Your task to perform on an android device: open chrome privacy settings Image 0: 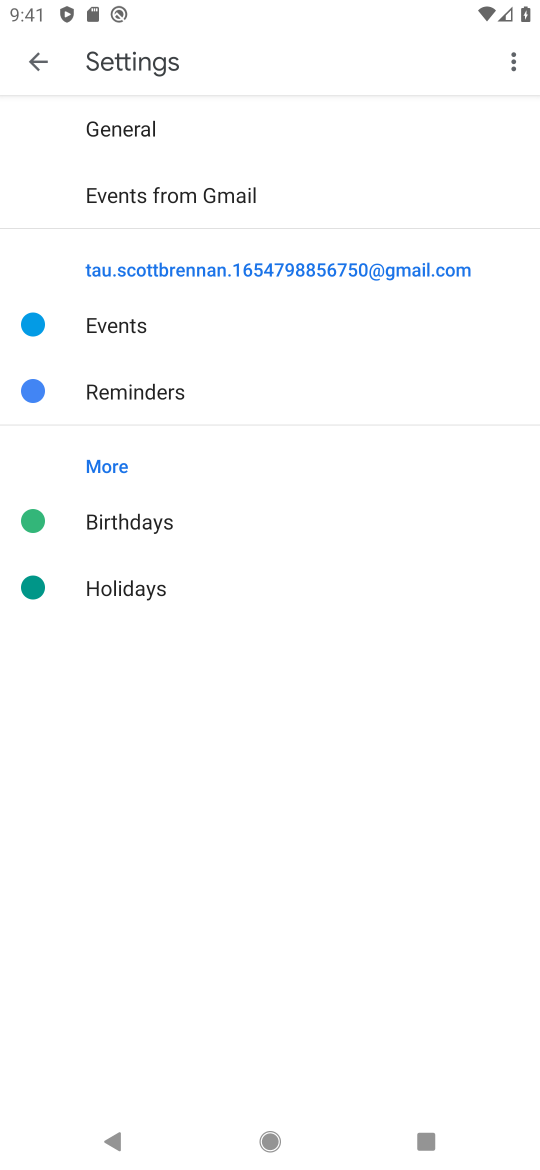
Step 0: press home button
Your task to perform on an android device: open chrome privacy settings Image 1: 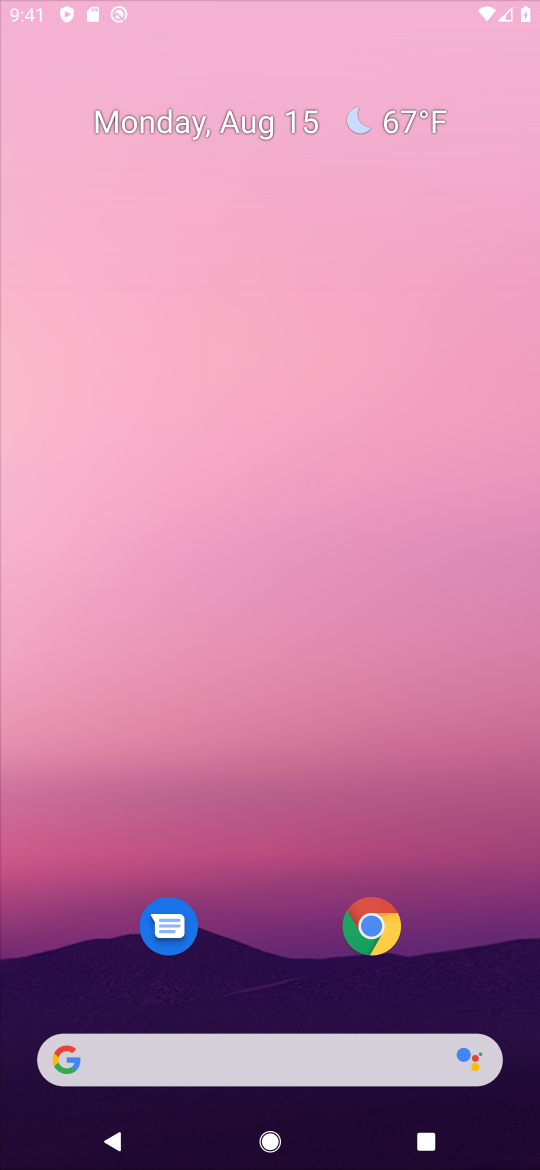
Step 1: press home button
Your task to perform on an android device: open chrome privacy settings Image 2: 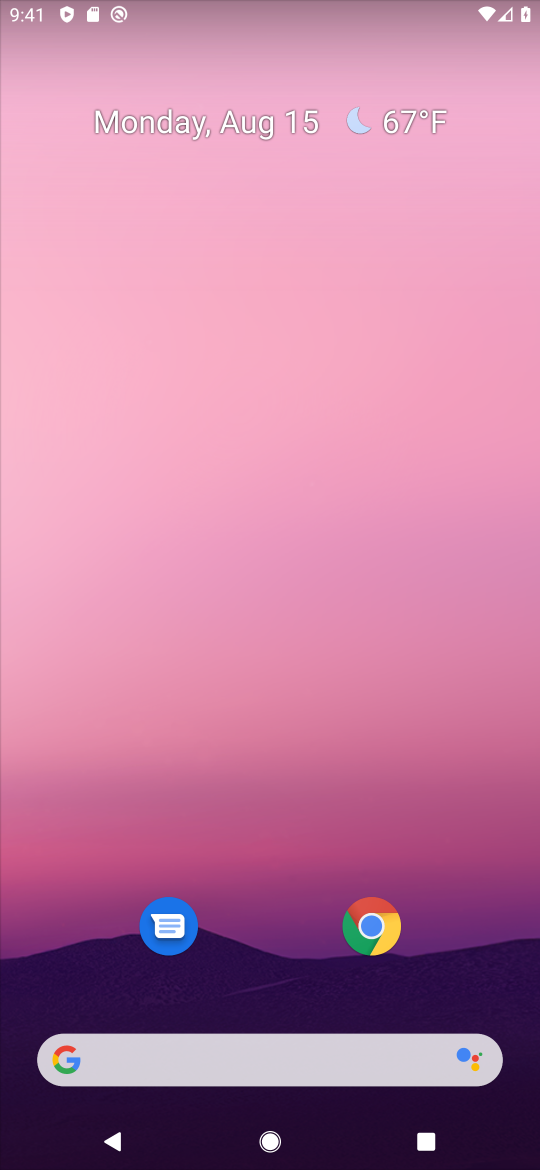
Step 2: click (384, 938)
Your task to perform on an android device: open chrome privacy settings Image 3: 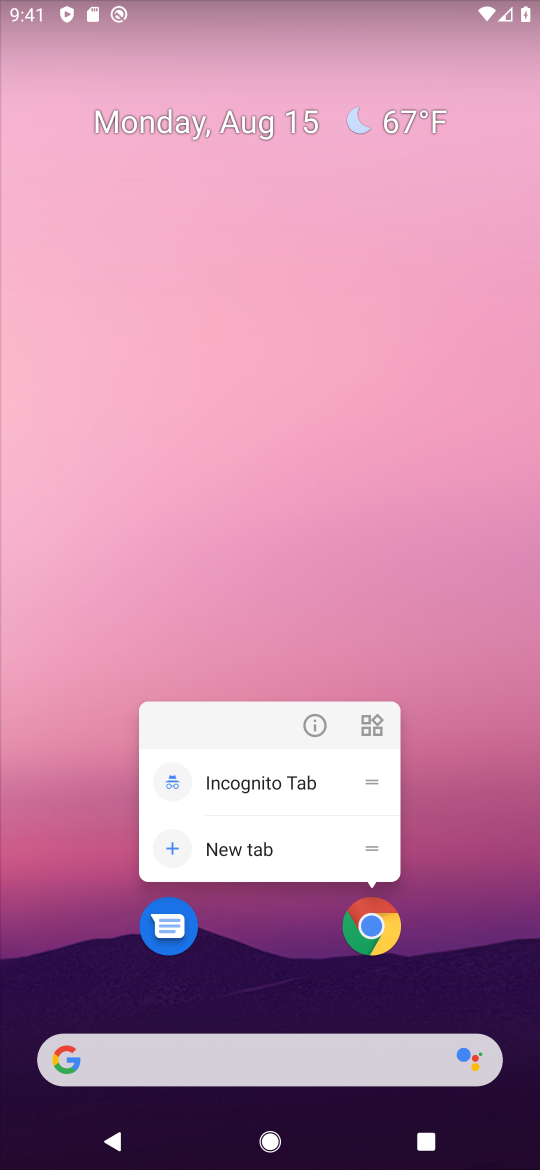
Step 3: click (384, 938)
Your task to perform on an android device: open chrome privacy settings Image 4: 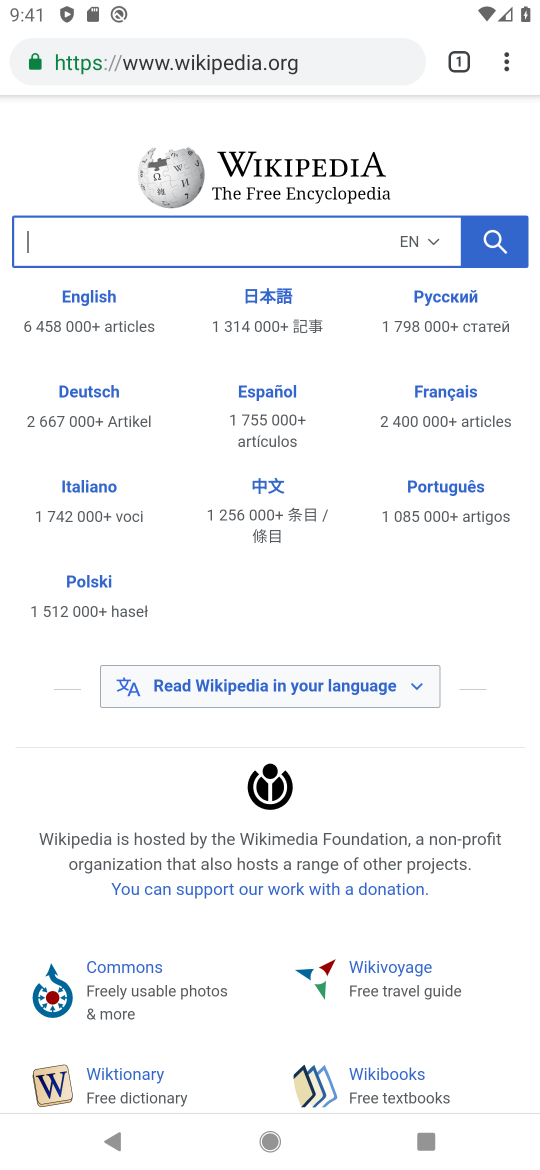
Step 4: click (508, 58)
Your task to perform on an android device: open chrome privacy settings Image 5: 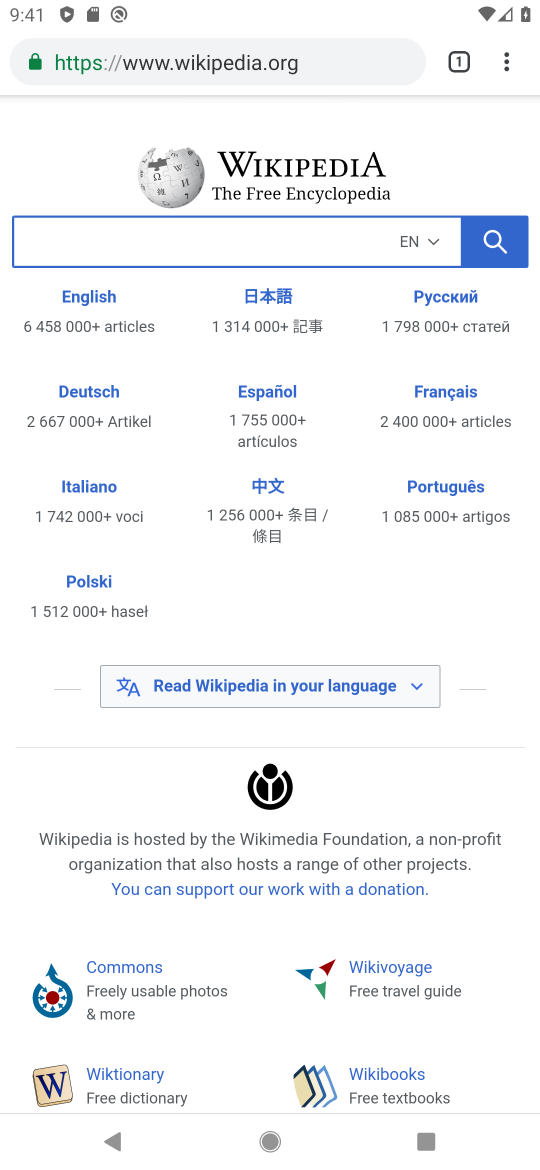
Step 5: drag from (508, 58) to (253, 749)
Your task to perform on an android device: open chrome privacy settings Image 6: 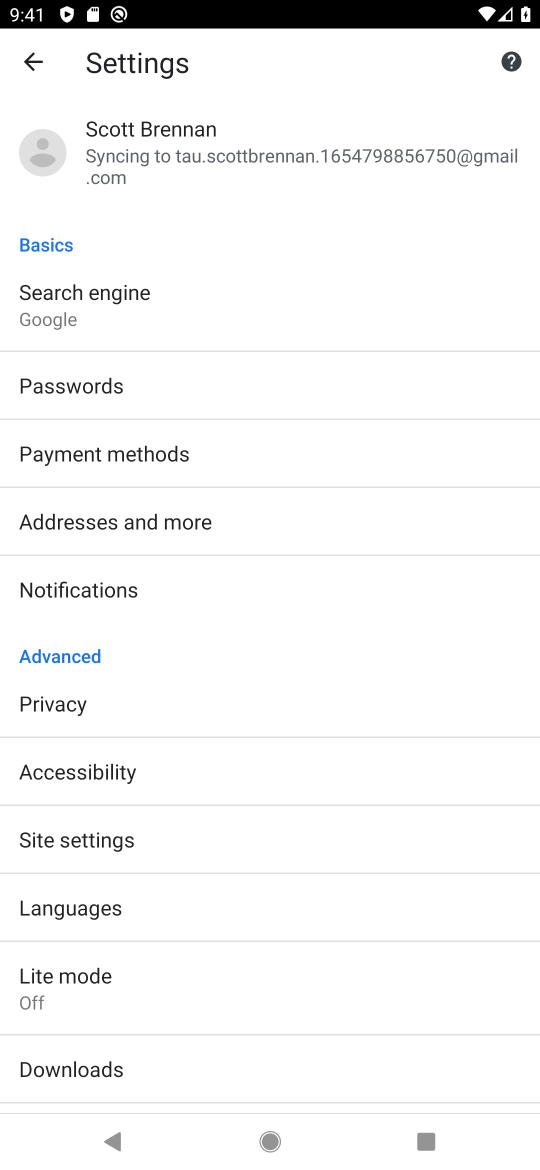
Step 6: click (81, 721)
Your task to perform on an android device: open chrome privacy settings Image 7: 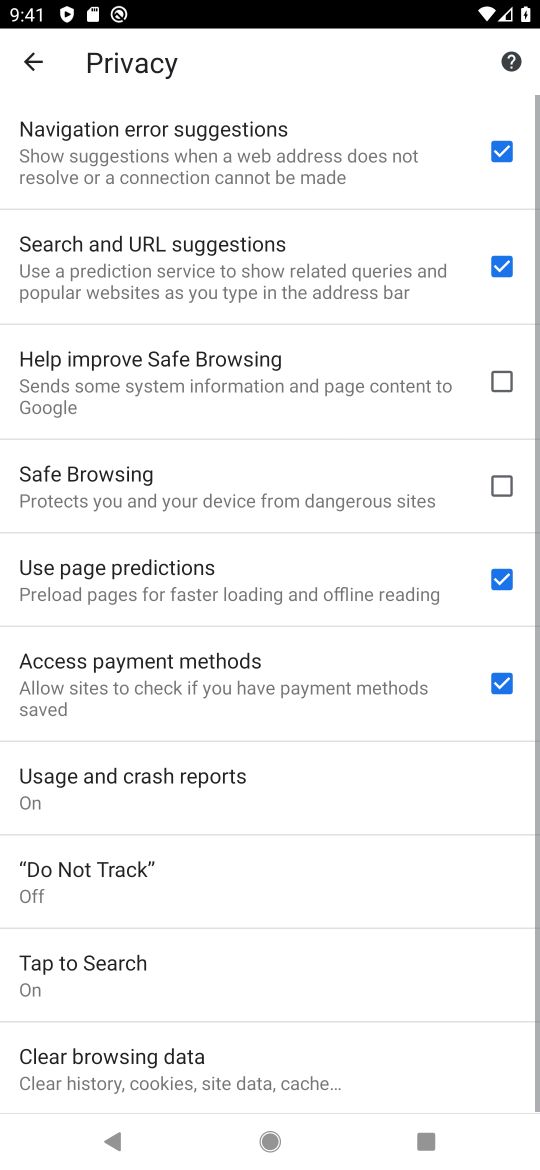
Step 7: task complete